Your task to perform on an android device: turn notification dots off Image 0: 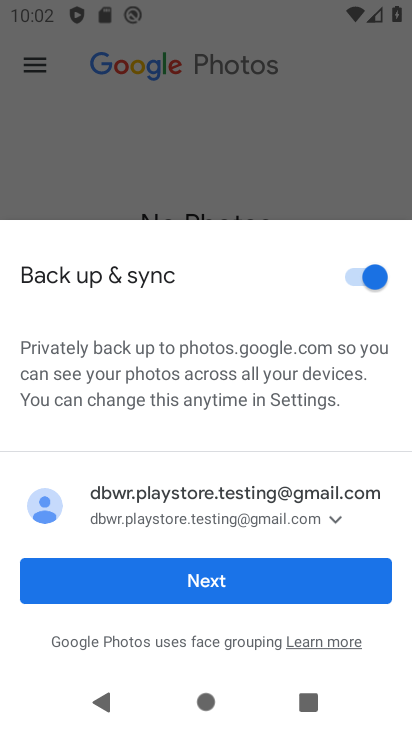
Step 0: press home button
Your task to perform on an android device: turn notification dots off Image 1: 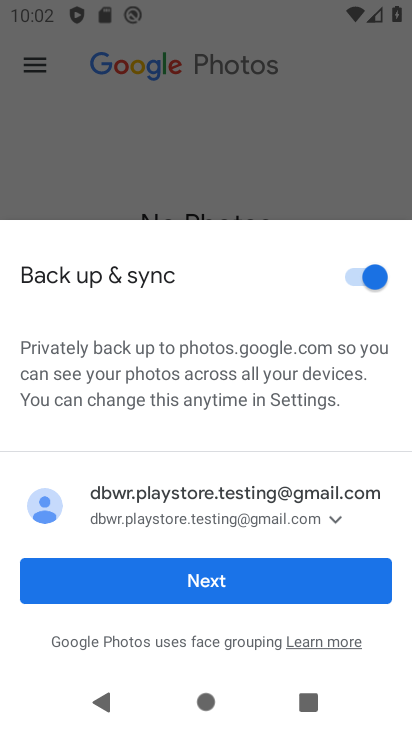
Step 1: press home button
Your task to perform on an android device: turn notification dots off Image 2: 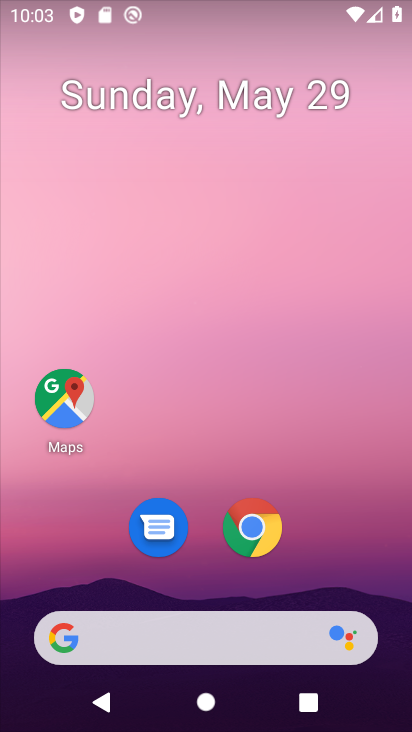
Step 2: drag from (361, 554) to (256, 116)
Your task to perform on an android device: turn notification dots off Image 3: 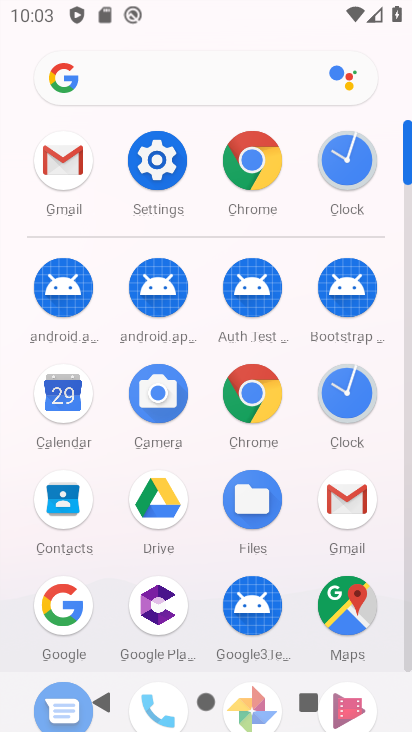
Step 3: click (147, 156)
Your task to perform on an android device: turn notification dots off Image 4: 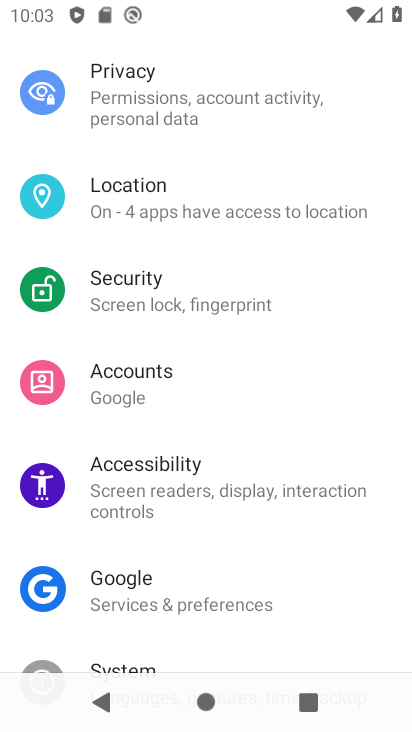
Step 4: drag from (206, 124) to (263, 631)
Your task to perform on an android device: turn notification dots off Image 5: 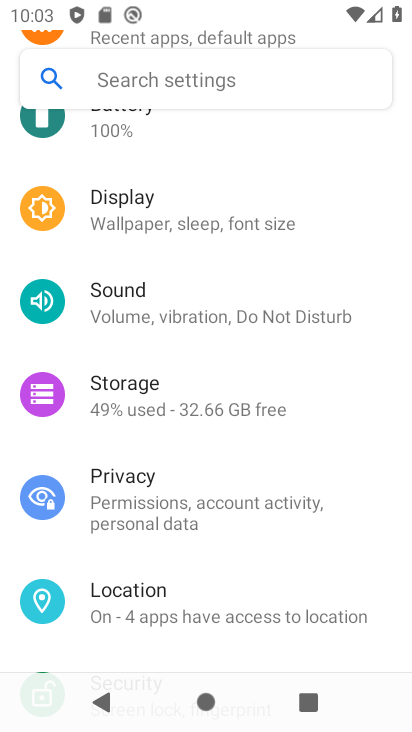
Step 5: drag from (256, 157) to (336, 434)
Your task to perform on an android device: turn notification dots off Image 6: 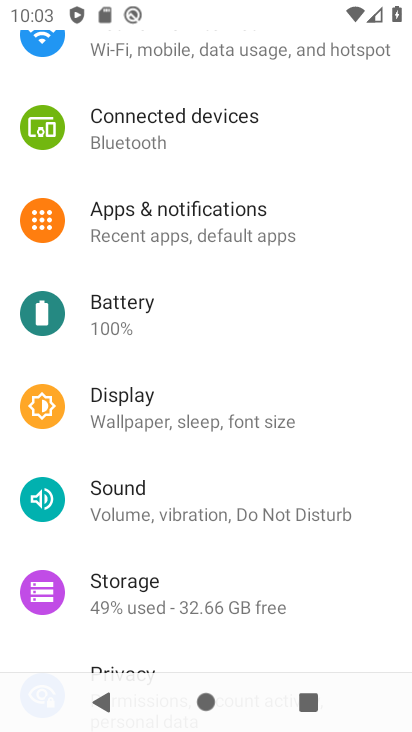
Step 6: click (213, 213)
Your task to perform on an android device: turn notification dots off Image 7: 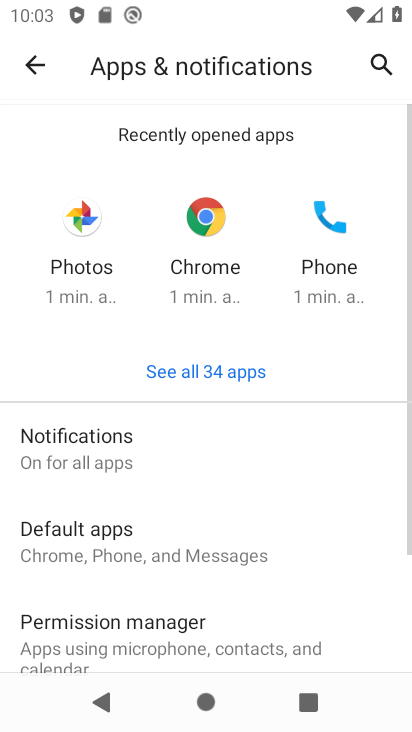
Step 7: click (152, 460)
Your task to perform on an android device: turn notification dots off Image 8: 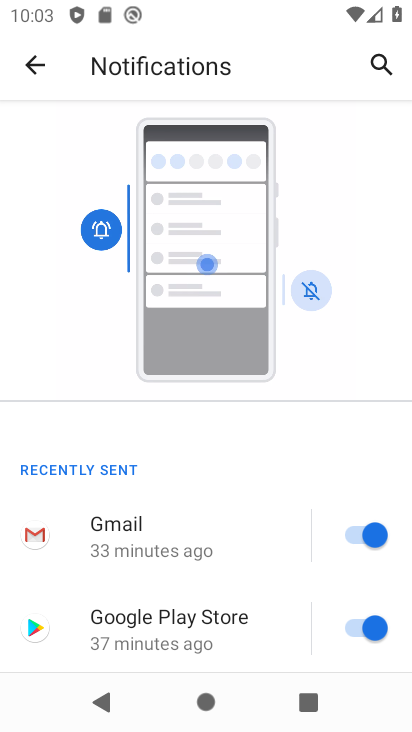
Step 8: drag from (238, 511) to (300, 176)
Your task to perform on an android device: turn notification dots off Image 9: 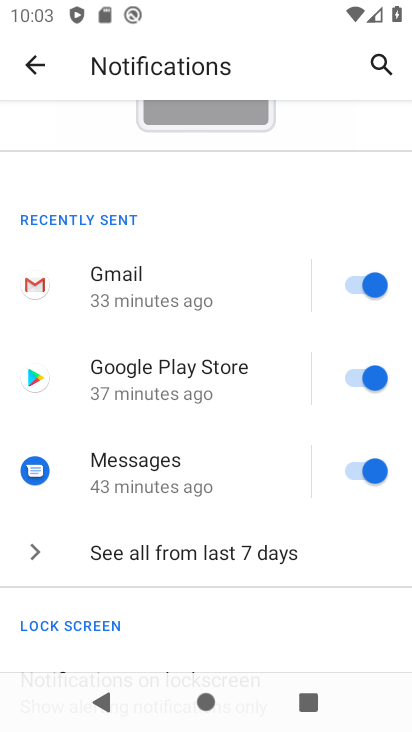
Step 9: drag from (249, 567) to (234, 170)
Your task to perform on an android device: turn notification dots off Image 10: 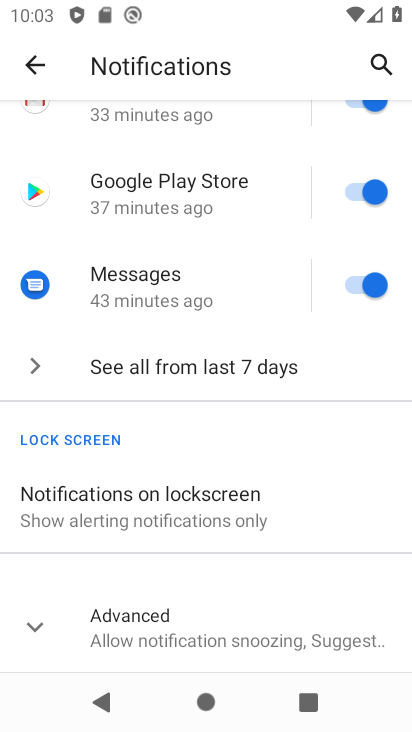
Step 10: click (227, 621)
Your task to perform on an android device: turn notification dots off Image 11: 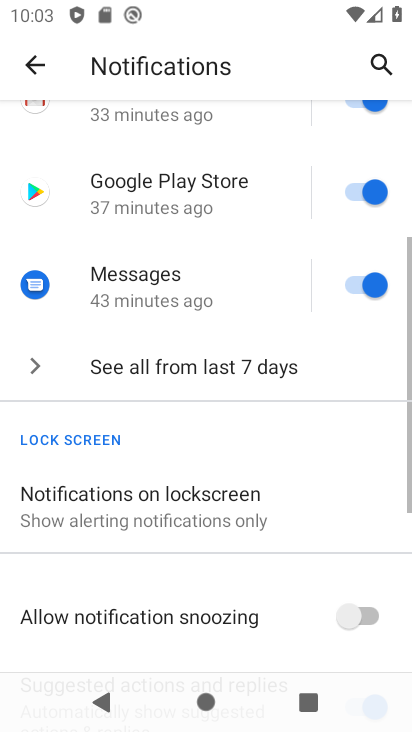
Step 11: drag from (227, 611) to (269, 243)
Your task to perform on an android device: turn notification dots off Image 12: 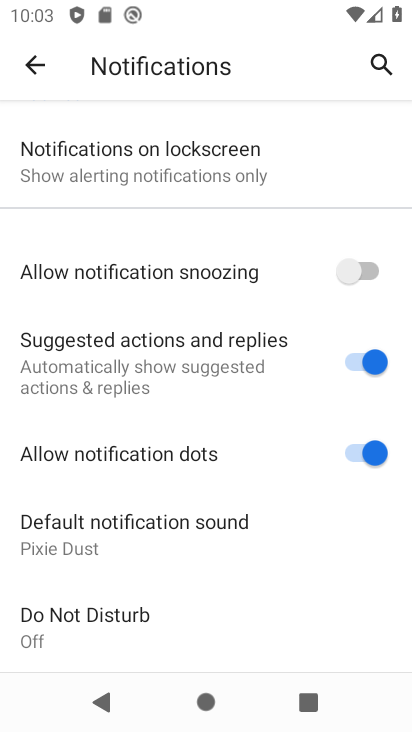
Step 12: click (367, 460)
Your task to perform on an android device: turn notification dots off Image 13: 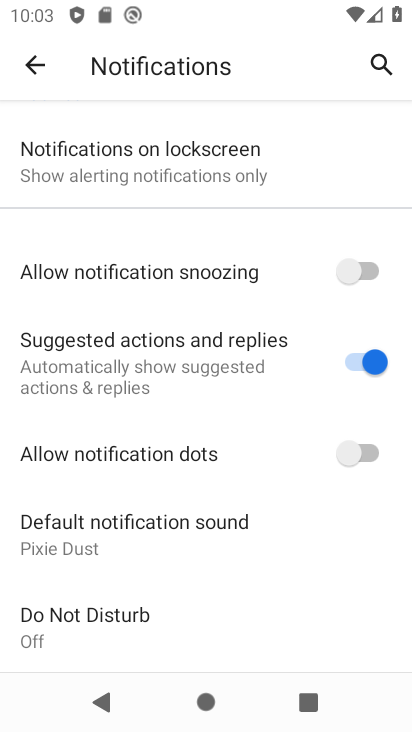
Step 13: task complete